Your task to perform on an android device: Search for Mexican restaurants on Maps Image 0: 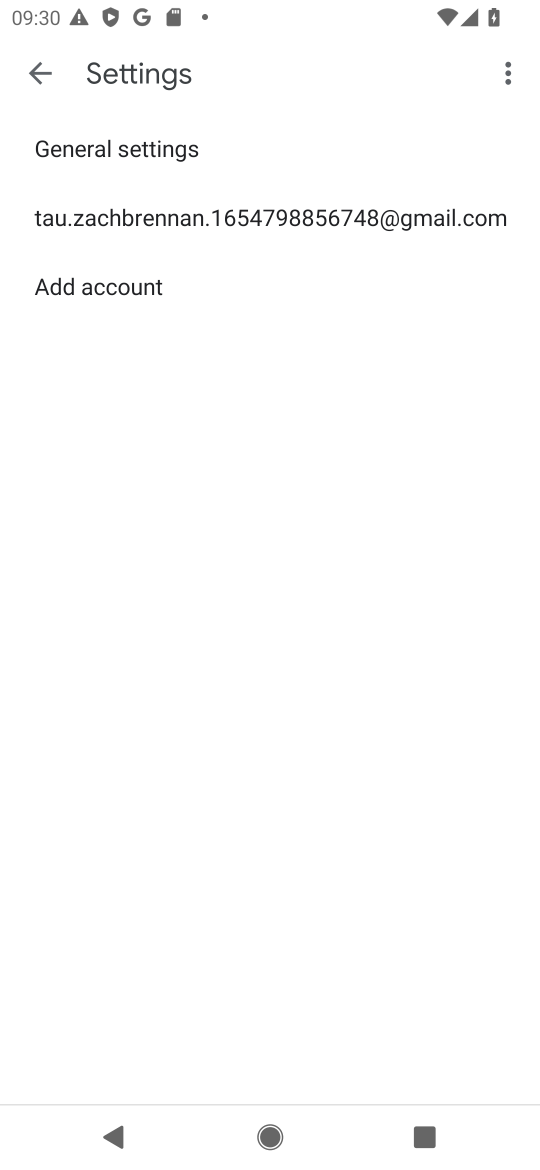
Step 0: press home button
Your task to perform on an android device: Search for Mexican restaurants on Maps Image 1: 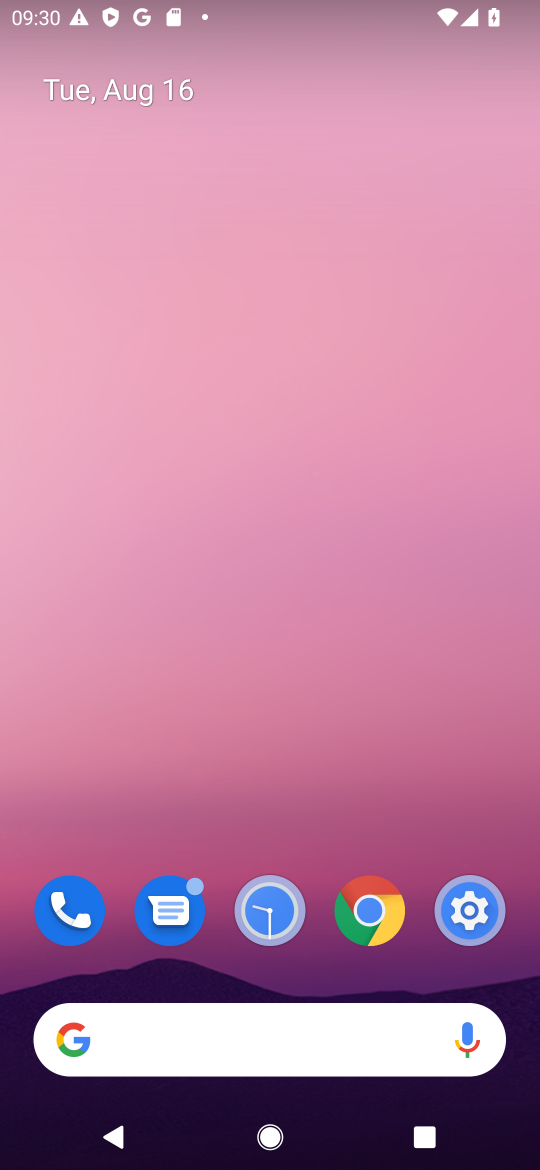
Step 1: drag from (349, 396) to (323, 0)
Your task to perform on an android device: Search for Mexican restaurants on Maps Image 2: 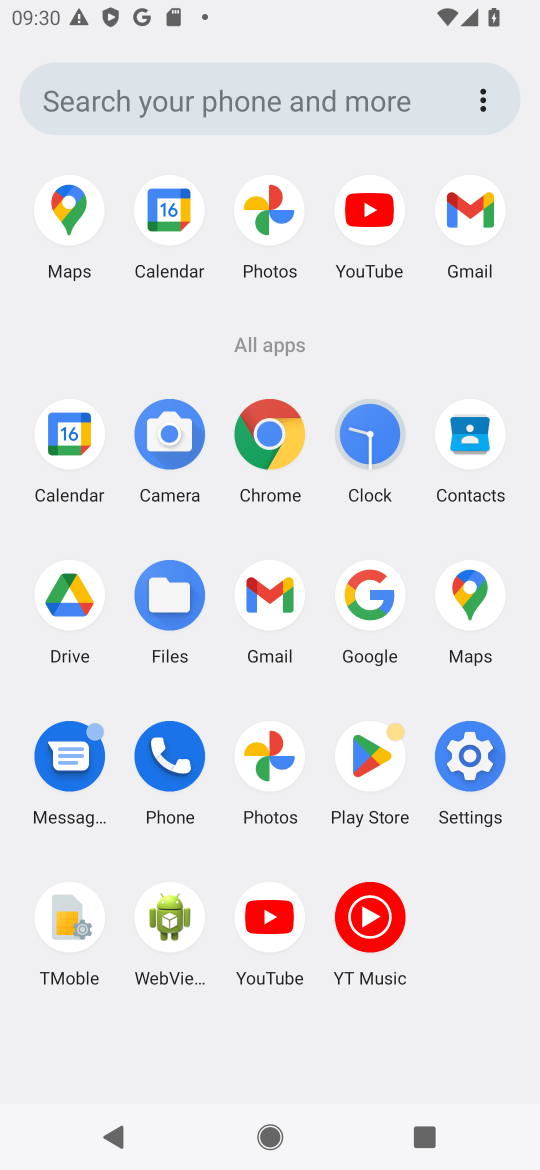
Step 2: click (471, 600)
Your task to perform on an android device: Search for Mexican restaurants on Maps Image 3: 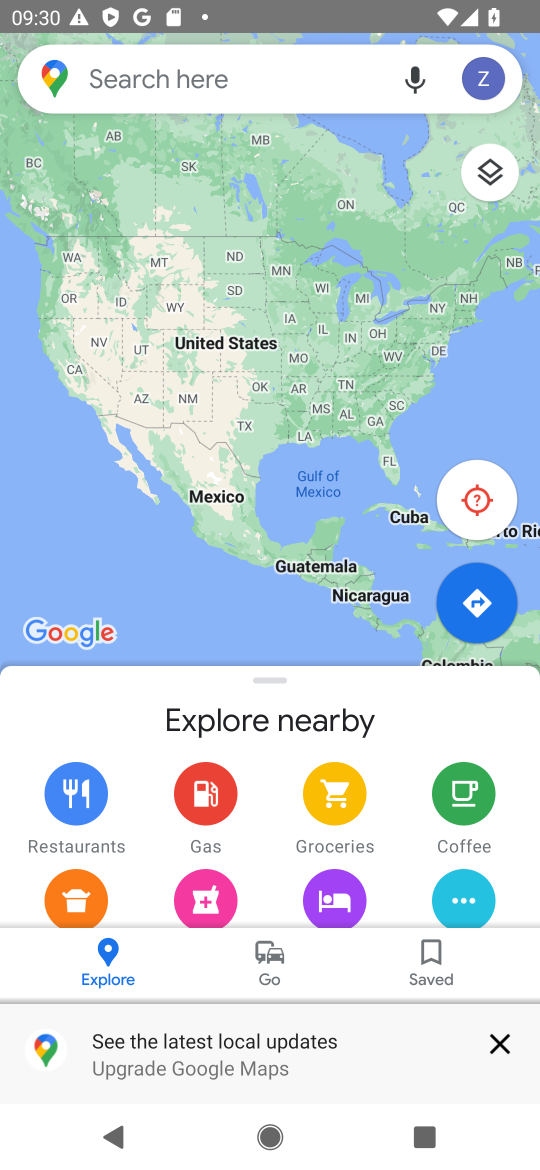
Step 3: click (251, 77)
Your task to perform on an android device: Search for Mexican restaurants on Maps Image 4: 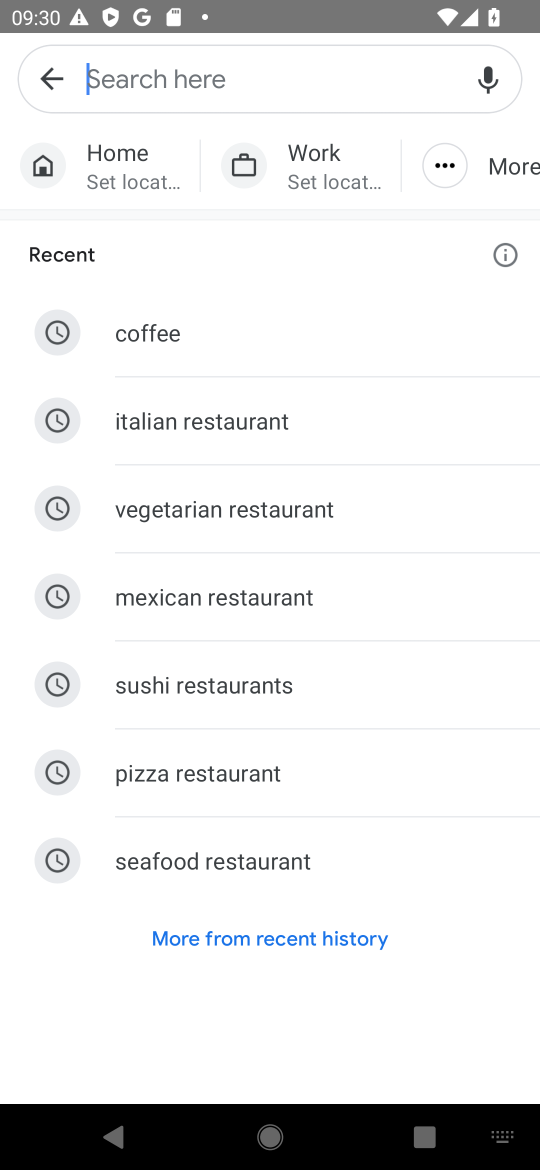
Step 4: click (263, 599)
Your task to perform on an android device: Search for Mexican restaurants on Maps Image 5: 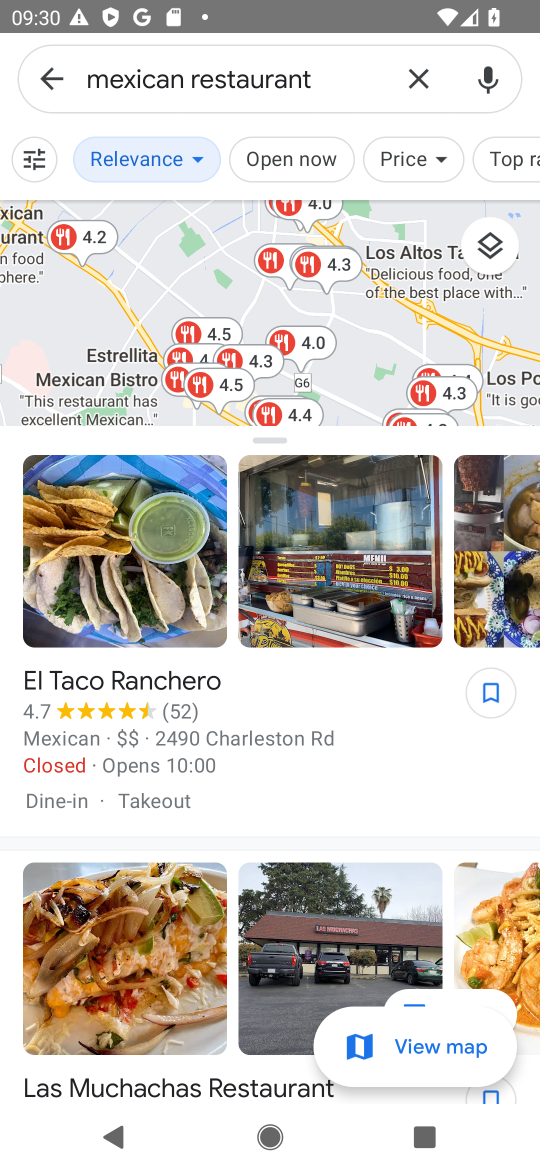
Step 5: task complete